Your task to perform on an android device: Open Google Chrome and open the bookmarks view Image 0: 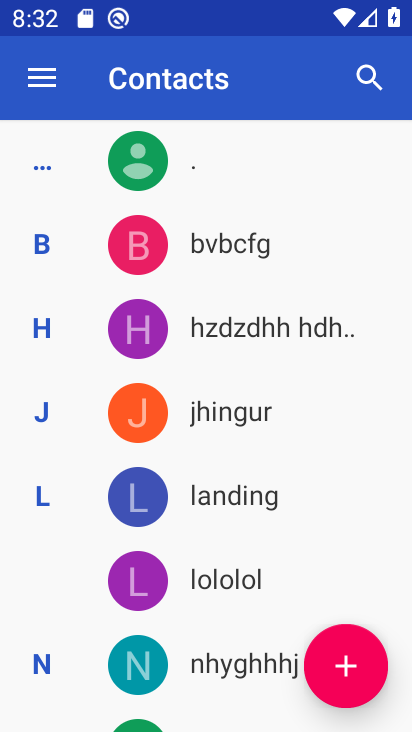
Step 0: press home button
Your task to perform on an android device: Open Google Chrome and open the bookmarks view Image 1: 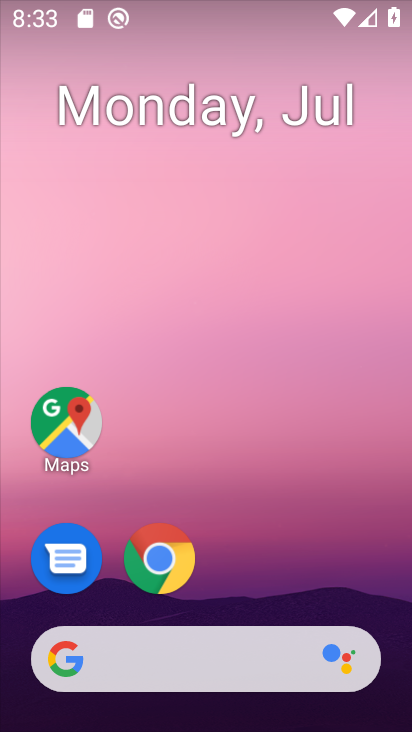
Step 1: drag from (348, 600) to (350, 160)
Your task to perform on an android device: Open Google Chrome and open the bookmarks view Image 2: 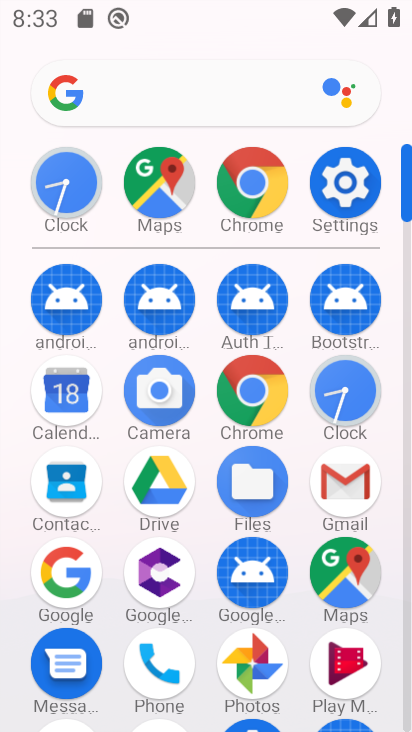
Step 2: click (254, 396)
Your task to perform on an android device: Open Google Chrome and open the bookmarks view Image 3: 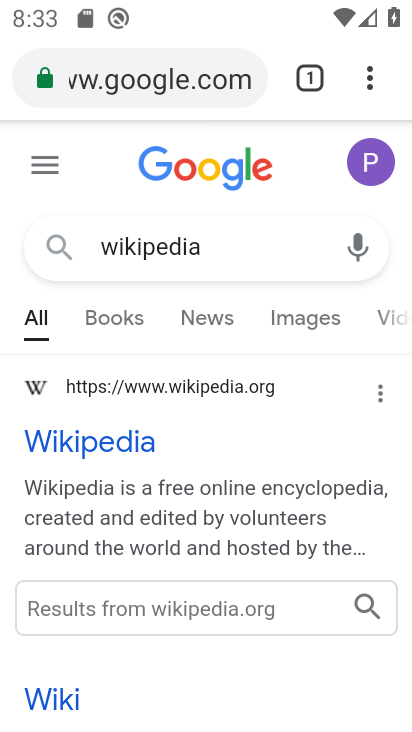
Step 3: click (369, 88)
Your task to perform on an android device: Open Google Chrome and open the bookmarks view Image 4: 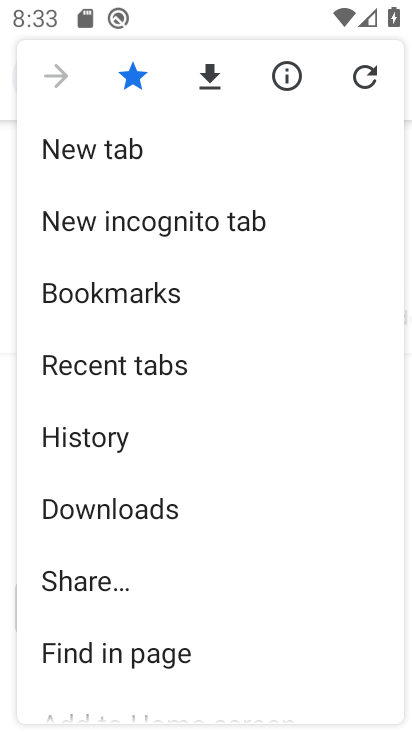
Step 4: click (168, 304)
Your task to perform on an android device: Open Google Chrome and open the bookmarks view Image 5: 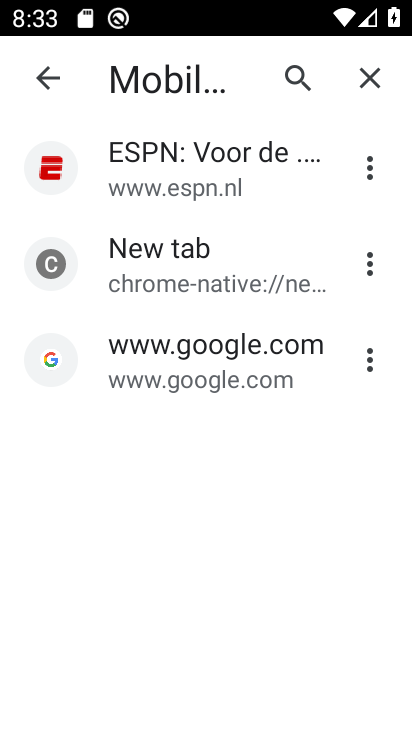
Step 5: task complete